Your task to perform on an android device: What is the news today? Image 0: 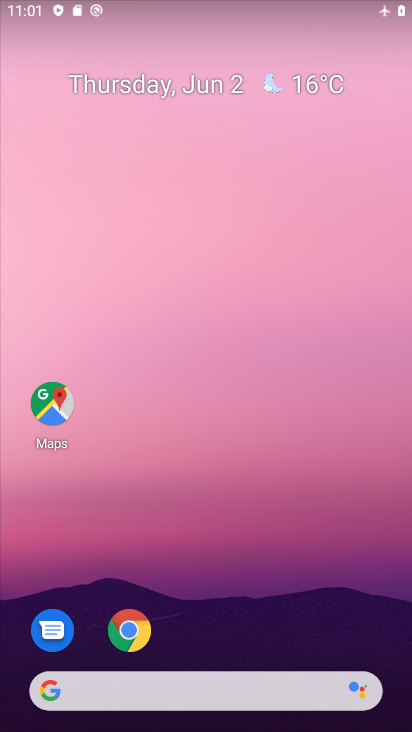
Step 0: click (227, 679)
Your task to perform on an android device: What is the news today? Image 1: 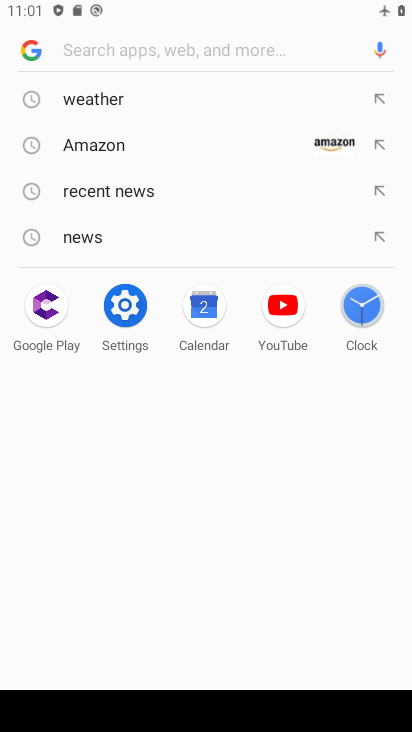
Step 1: type "news today ?"
Your task to perform on an android device: What is the news today? Image 2: 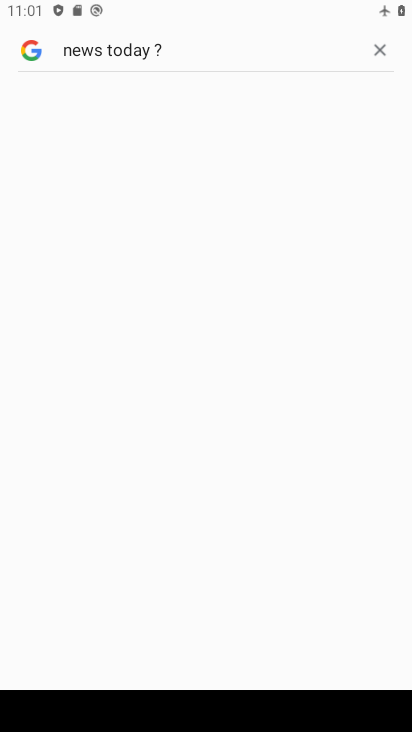
Step 2: task complete